Your task to perform on an android device: turn off airplane mode Image 0: 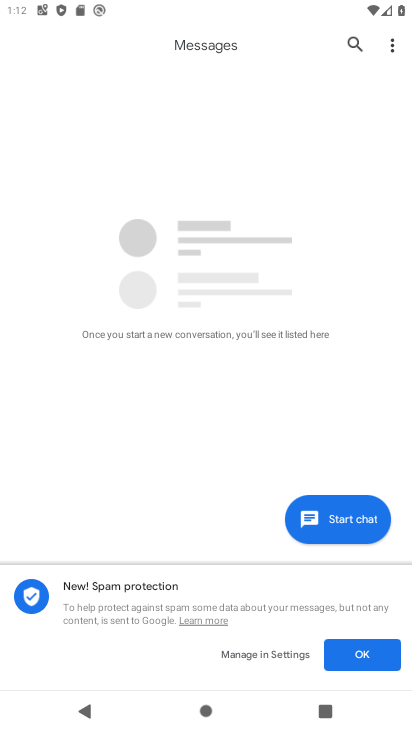
Step 0: press home button
Your task to perform on an android device: turn off airplane mode Image 1: 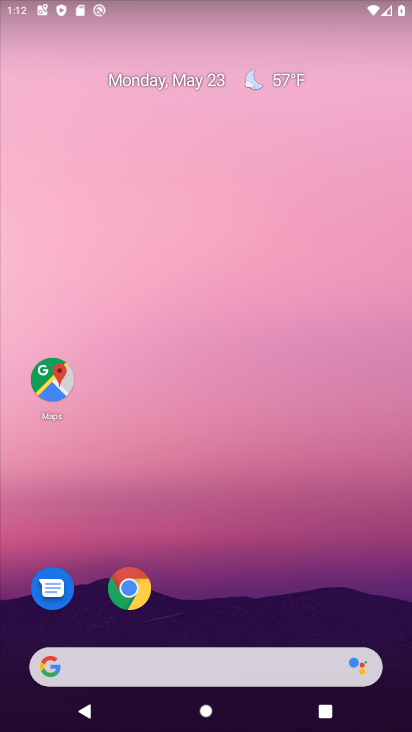
Step 1: drag from (290, 615) to (253, 6)
Your task to perform on an android device: turn off airplane mode Image 2: 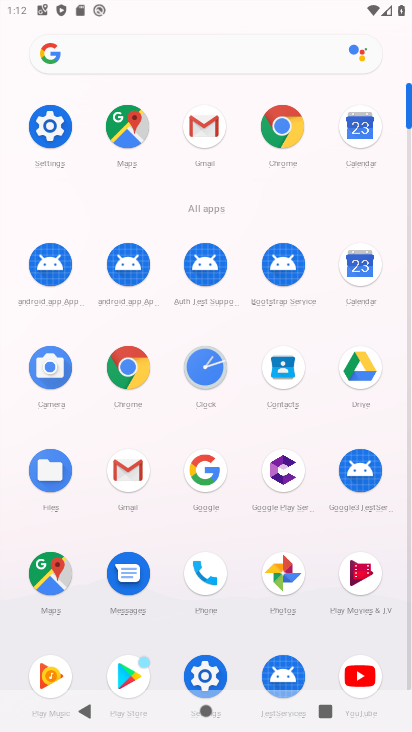
Step 2: click (40, 133)
Your task to perform on an android device: turn off airplane mode Image 3: 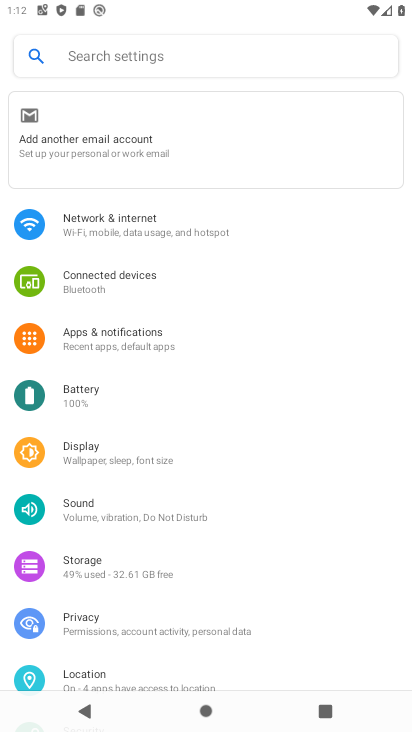
Step 3: click (157, 220)
Your task to perform on an android device: turn off airplane mode Image 4: 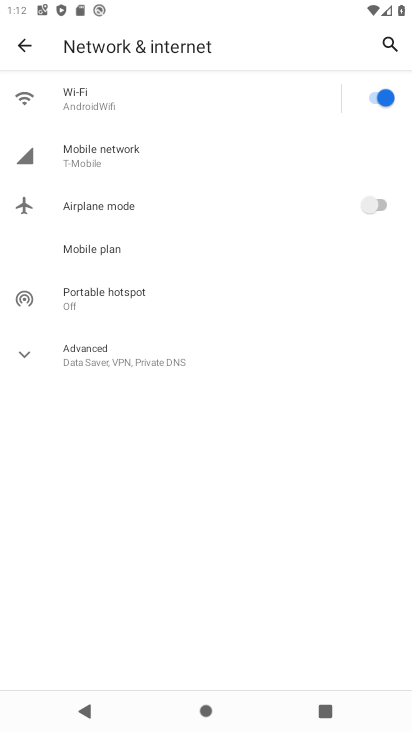
Step 4: task complete